Your task to perform on an android device: turn on translation in the chrome app Image 0: 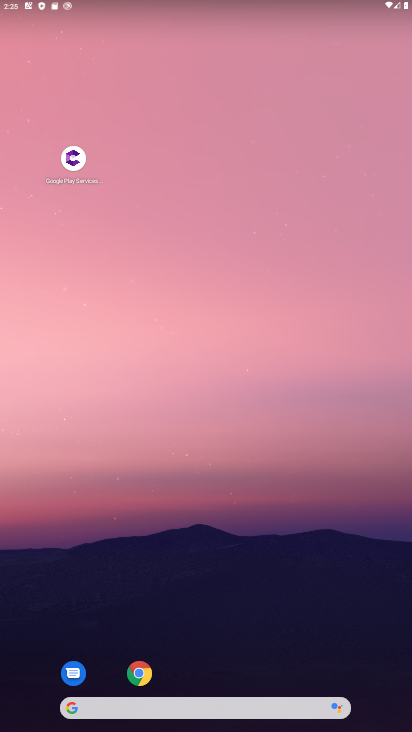
Step 0: click (136, 676)
Your task to perform on an android device: turn on translation in the chrome app Image 1: 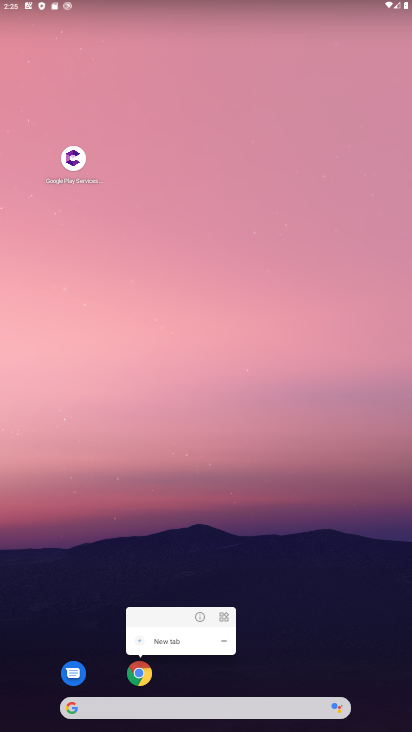
Step 1: click (143, 675)
Your task to perform on an android device: turn on translation in the chrome app Image 2: 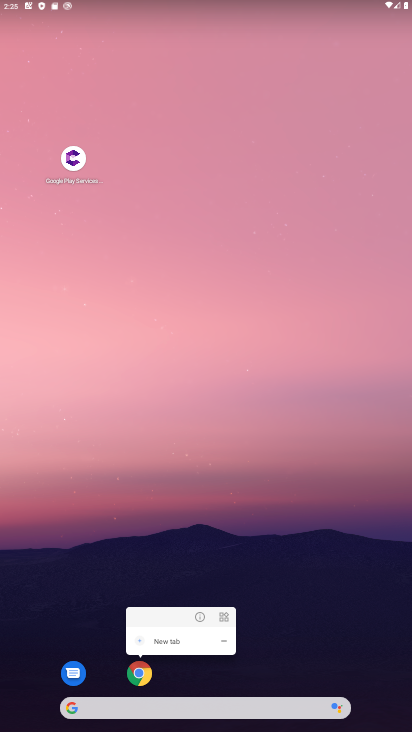
Step 2: click (143, 675)
Your task to perform on an android device: turn on translation in the chrome app Image 3: 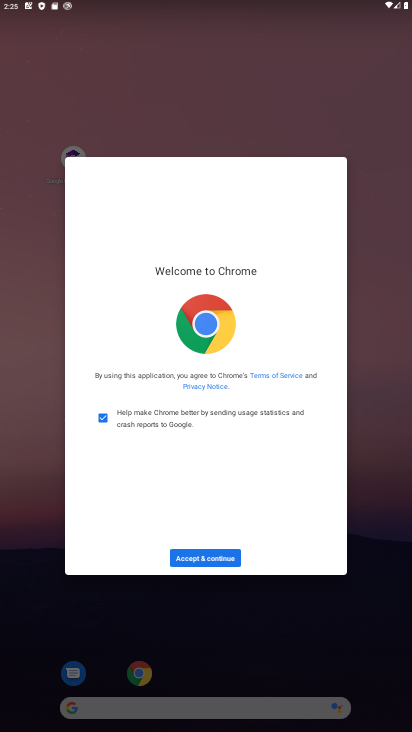
Step 3: click (209, 555)
Your task to perform on an android device: turn on translation in the chrome app Image 4: 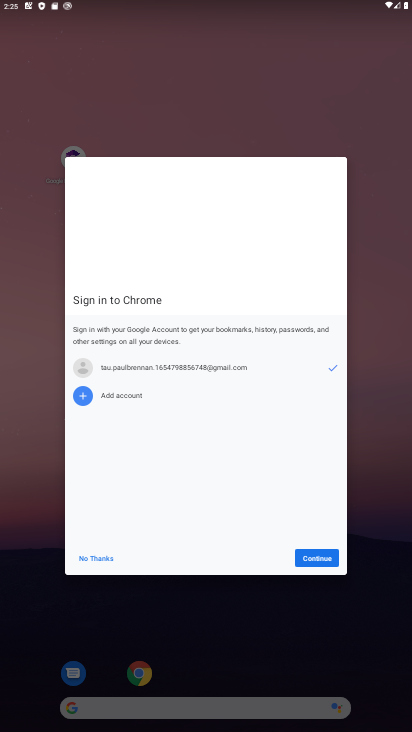
Step 4: click (316, 554)
Your task to perform on an android device: turn on translation in the chrome app Image 5: 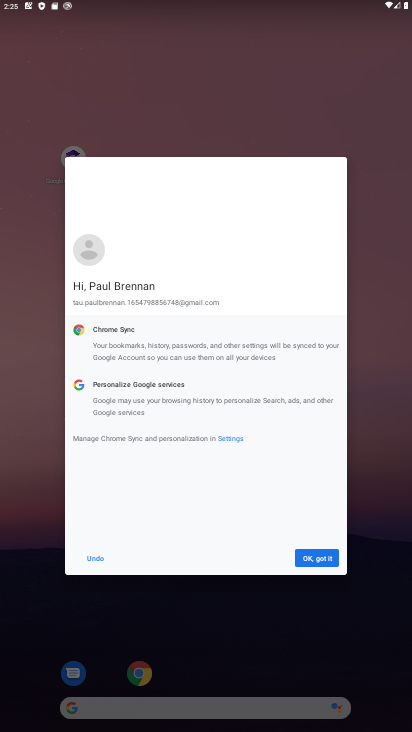
Step 5: click (318, 557)
Your task to perform on an android device: turn on translation in the chrome app Image 6: 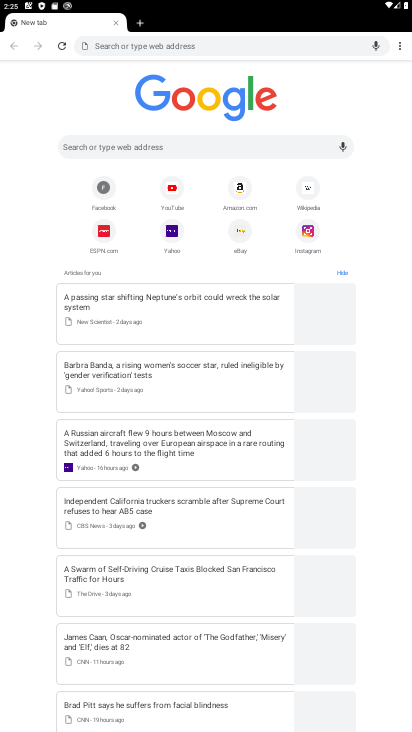
Step 6: click (400, 45)
Your task to perform on an android device: turn on translation in the chrome app Image 7: 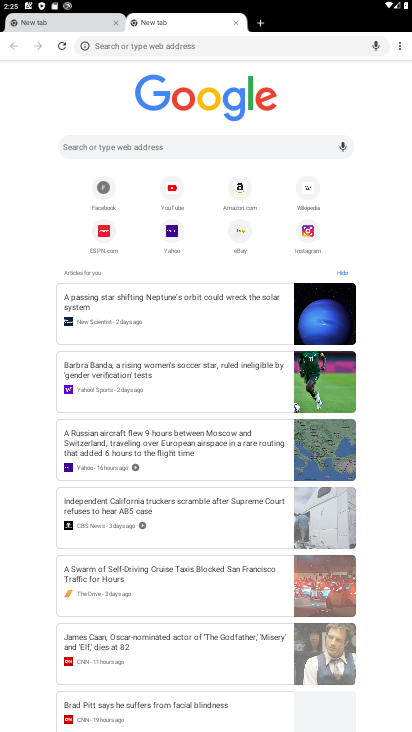
Step 7: click (400, 45)
Your task to perform on an android device: turn on translation in the chrome app Image 8: 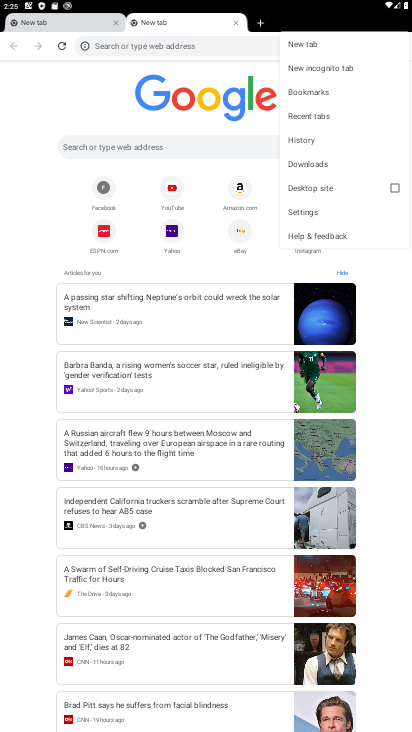
Step 8: click (306, 204)
Your task to perform on an android device: turn on translation in the chrome app Image 9: 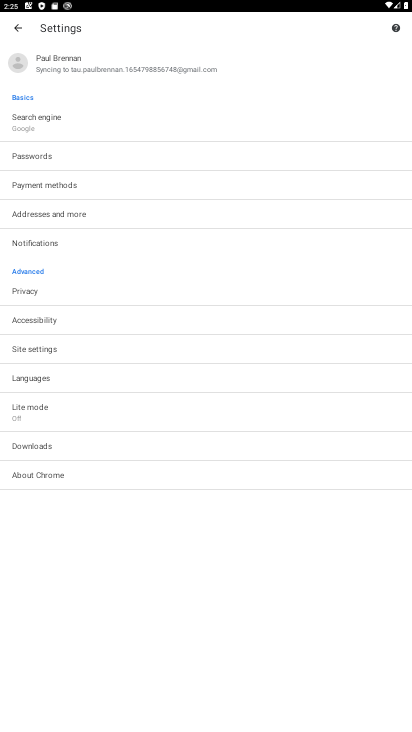
Step 9: click (38, 380)
Your task to perform on an android device: turn on translation in the chrome app Image 10: 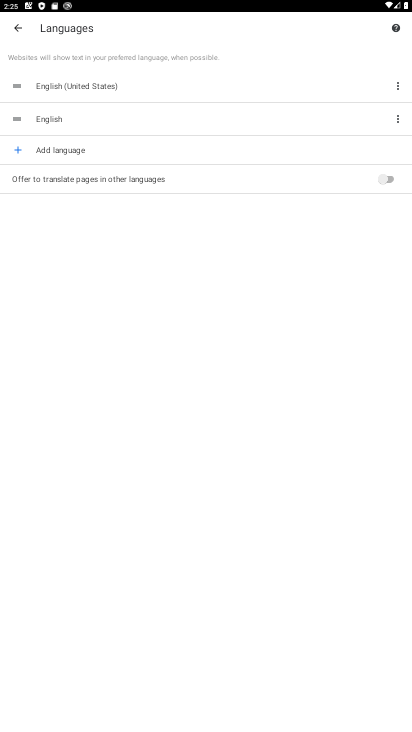
Step 10: click (386, 177)
Your task to perform on an android device: turn on translation in the chrome app Image 11: 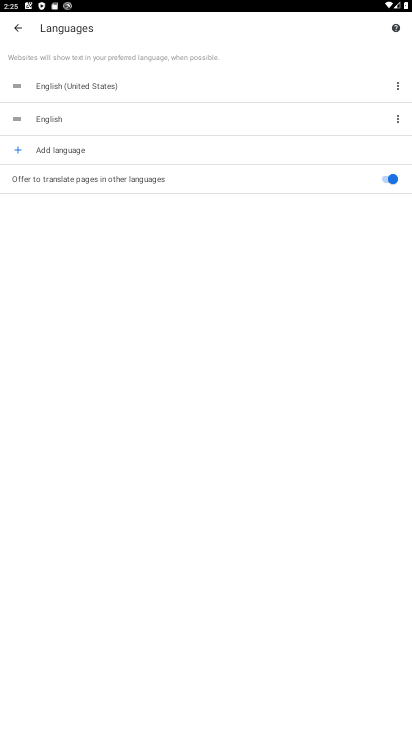
Step 11: task complete